Your task to perform on an android device: Search for "jbl flip 4" on ebay.com, select the first entry, and add it to the cart. Image 0: 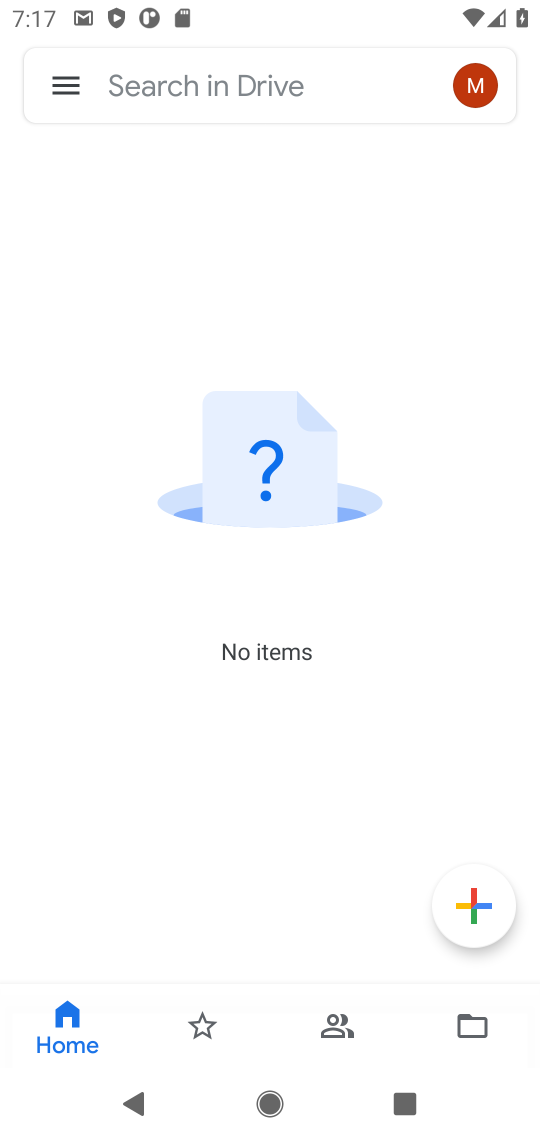
Step 0: press home button
Your task to perform on an android device: Search for "jbl flip 4" on ebay.com, select the first entry, and add it to the cart. Image 1: 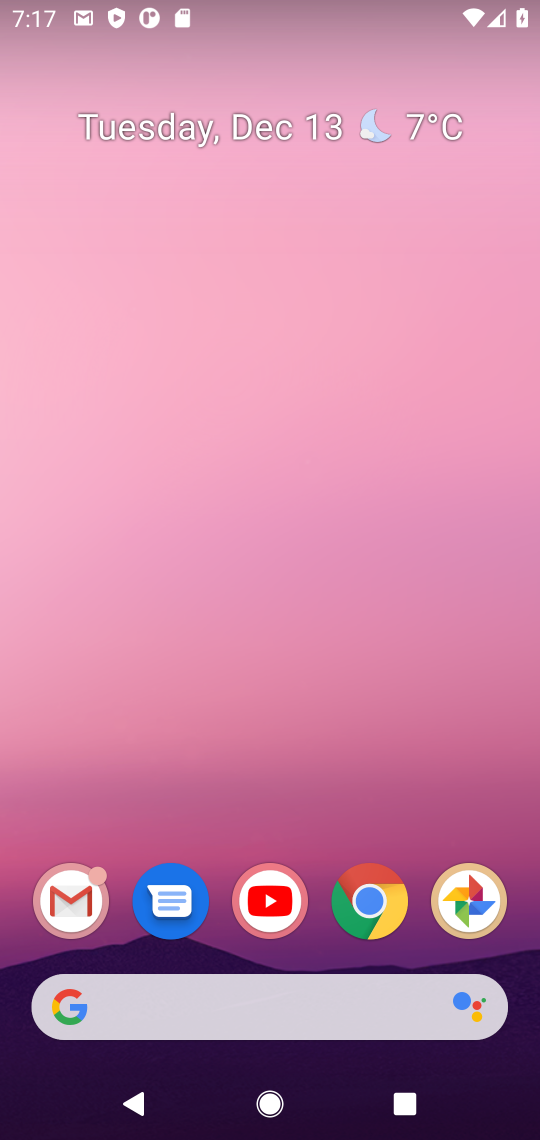
Step 1: click (369, 905)
Your task to perform on an android device: Search for "jbl flip 4" on ebay.com, select the first entry, and add it to the cart. Image 2: 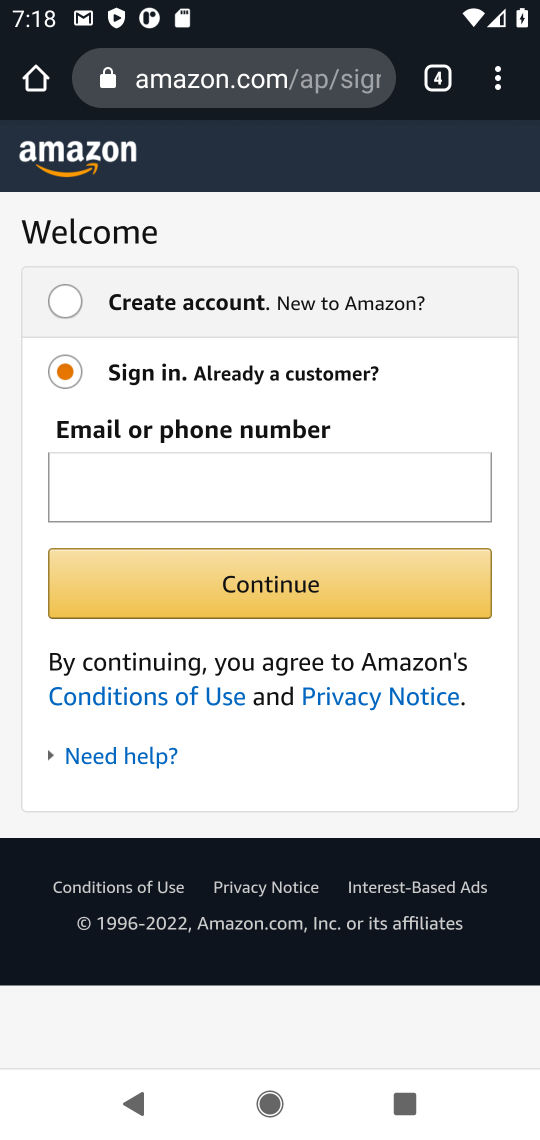
Step 2: click (426, 85)
Your task to perform on an android device: Search for "jbl flip 4" on ebay.com, select the first entry, and add it to the cart. Image 3: 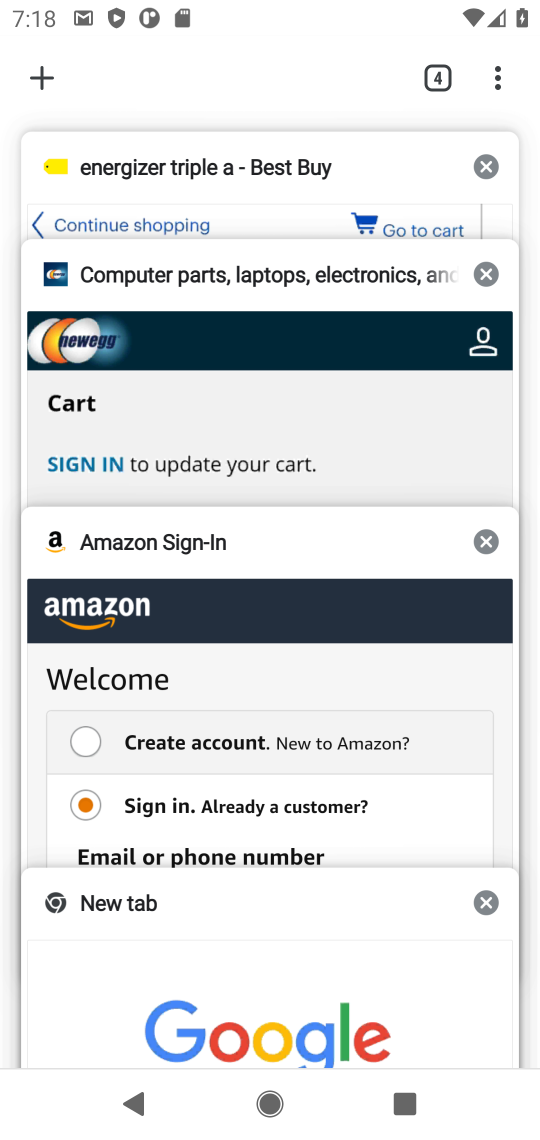
Step 3: click (170, 953)
Your task to perform on an android device: Search for "jbl flip 4" on ebay.com, select the first entry, and add it to the cart. Image 4: 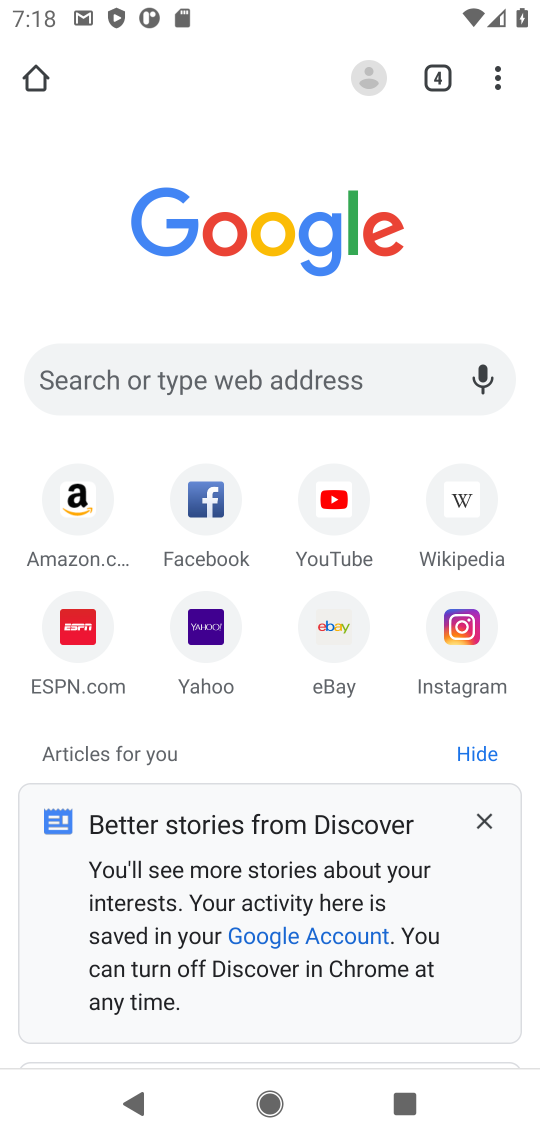
Step 4: click (332, 644)
Your task to perform on an android device: Search for "jbl flip 4" on ebay.com, select the first entry, and add it to the cart. Image 5: 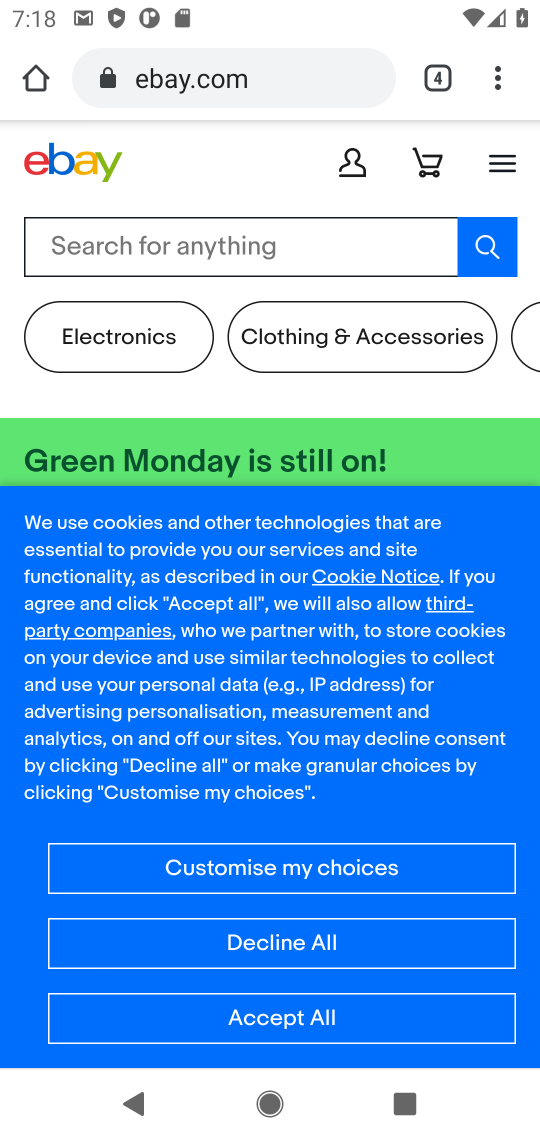
Step 5: click (172, 243)
Your task to perform on an android device: Search for "jbl flip 4" on ebay.com, select the first entry, and add it to the cart. Image 6: 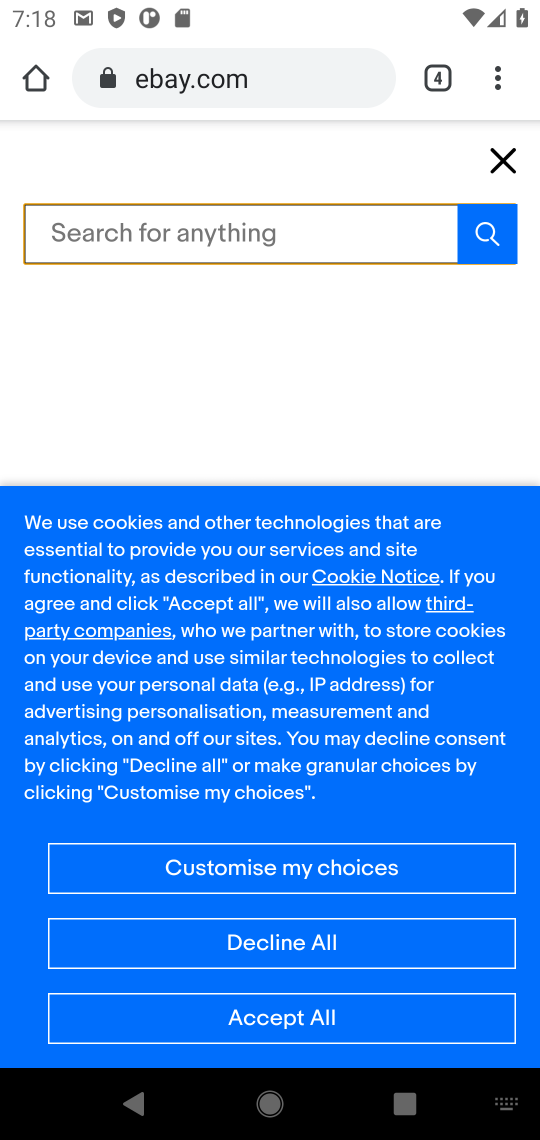
Step 6: type "jbl flip 4"
Your task to perform on an android device: Search for "jbl flip 4" on ebay.com, select the first entry, and add it to the cart. Image 7: 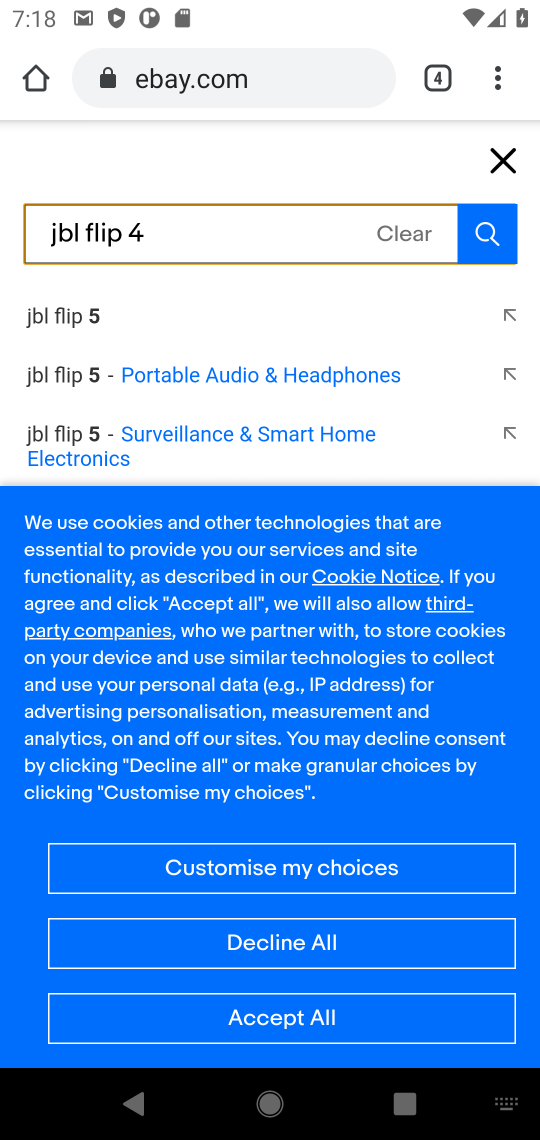
Step 7: click (332, 960)
Your task to perform on an android device: Search for "jbl flip 4" on ebay.com, select the first entry, and add it to the cart. Image 8: 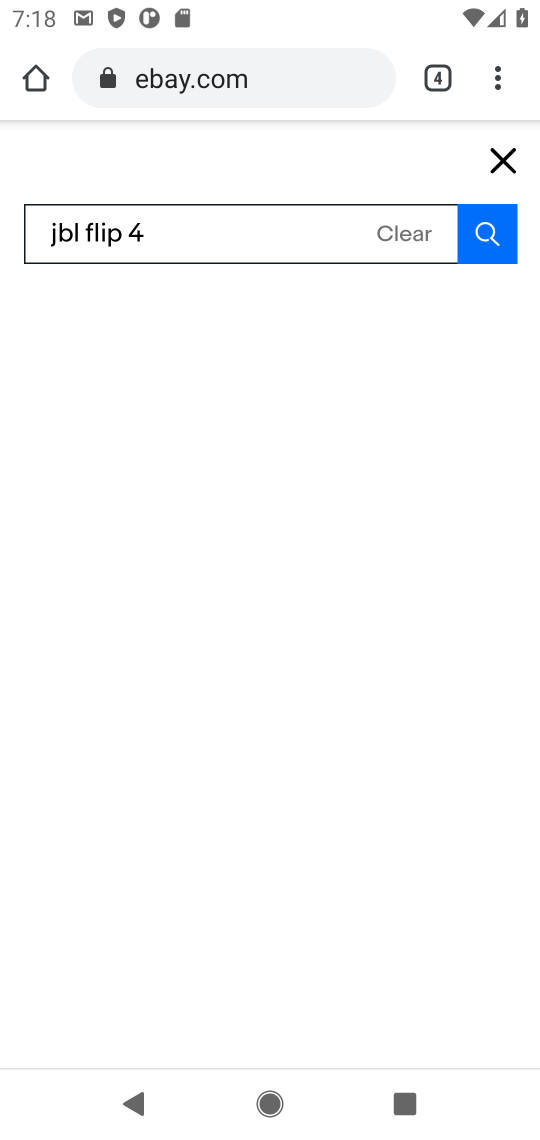
Step 8: click (488, 227)
Your task to perform on an android device: Search for "jbl flip 4" on ebay.com, select the first entry, and add it to the cart. Image 9: 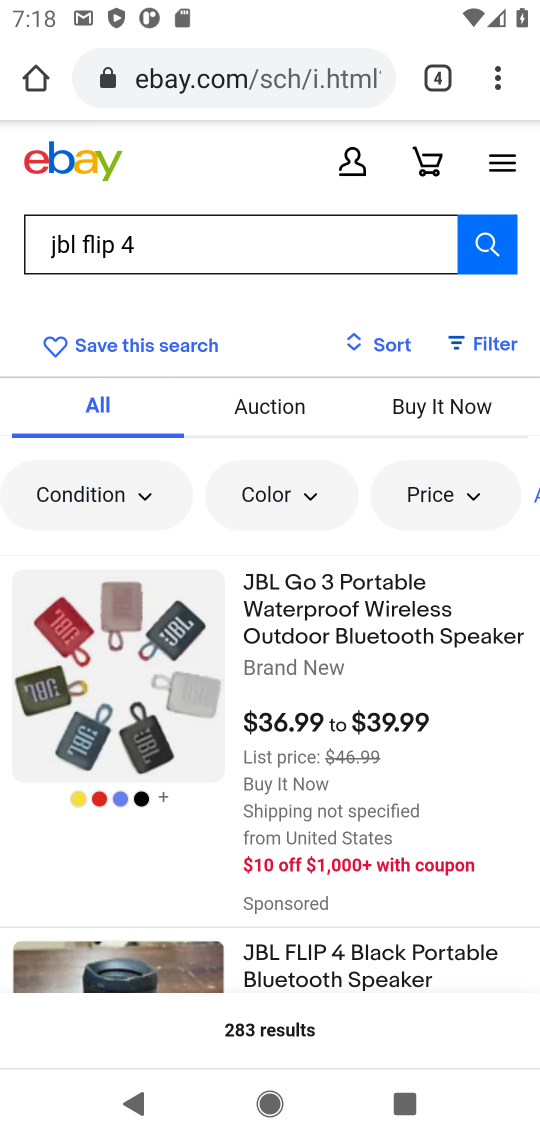
Step 9: click (361, 958)
Your task to perform on an android device: Search for "jbl flip 4" on ebay.com, select the first entry, and add it to the cart. Image 10: 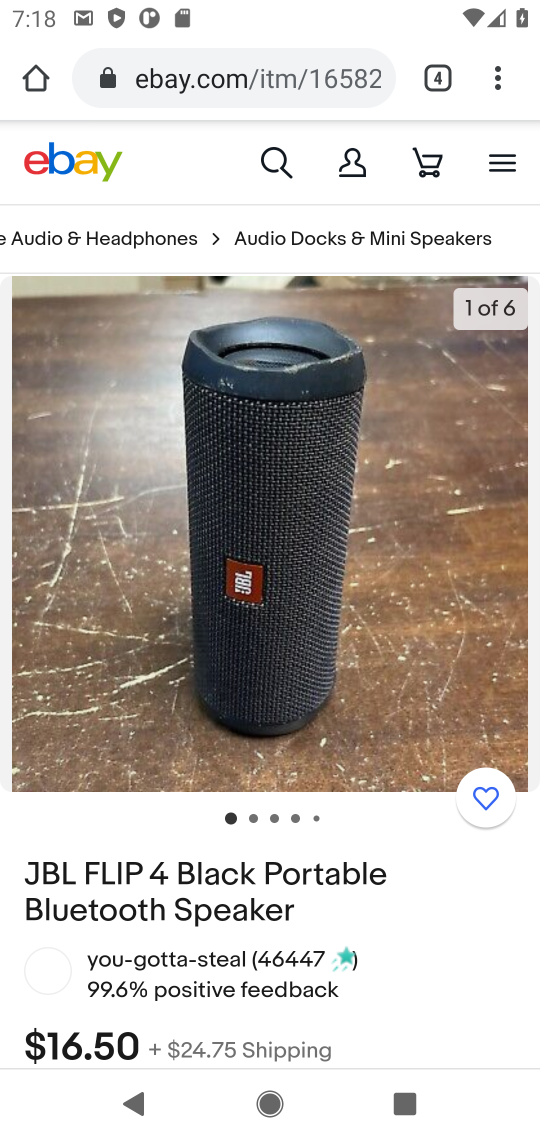
Step 10: drag from (358, 959) to (513, 381)
Your task to perform on an android device: Search for "jbl flip 4" on ebay.com, select the first entry, and add it to the cart. Image 11: 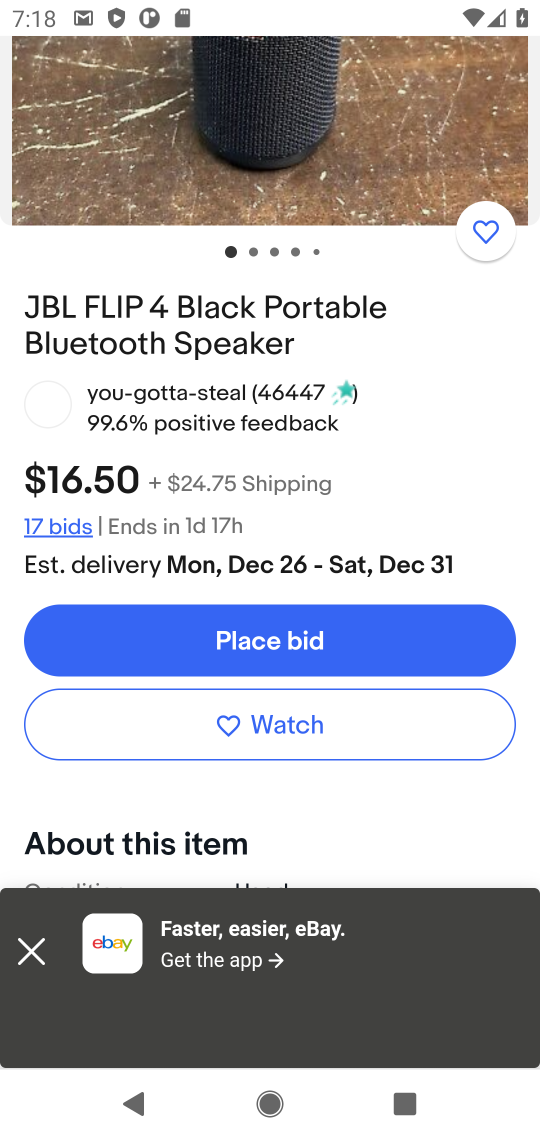
Step 11: drag from (267, 801) to (453, 40)
Your task to perform on an android device: Search for "jbl flip 4" on ebay.com, select the first entry, and add it to the cart. Image 12: 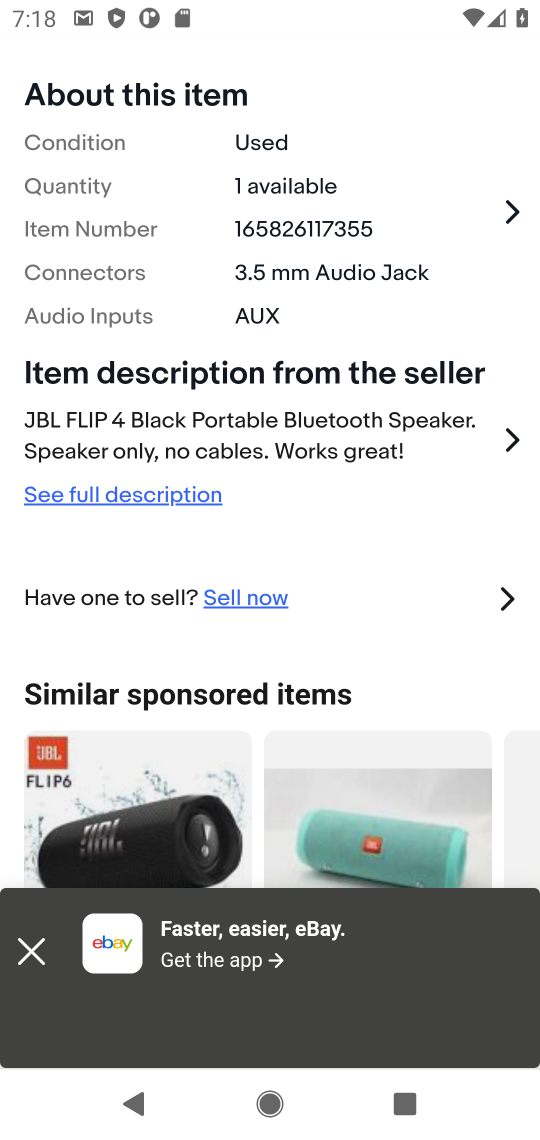
Step 12: click (23, 945)
Your task to perform on an android device: Search for "jbl flip 4" on ebay.com, select the first entry, and add it to the cart. Image 13: 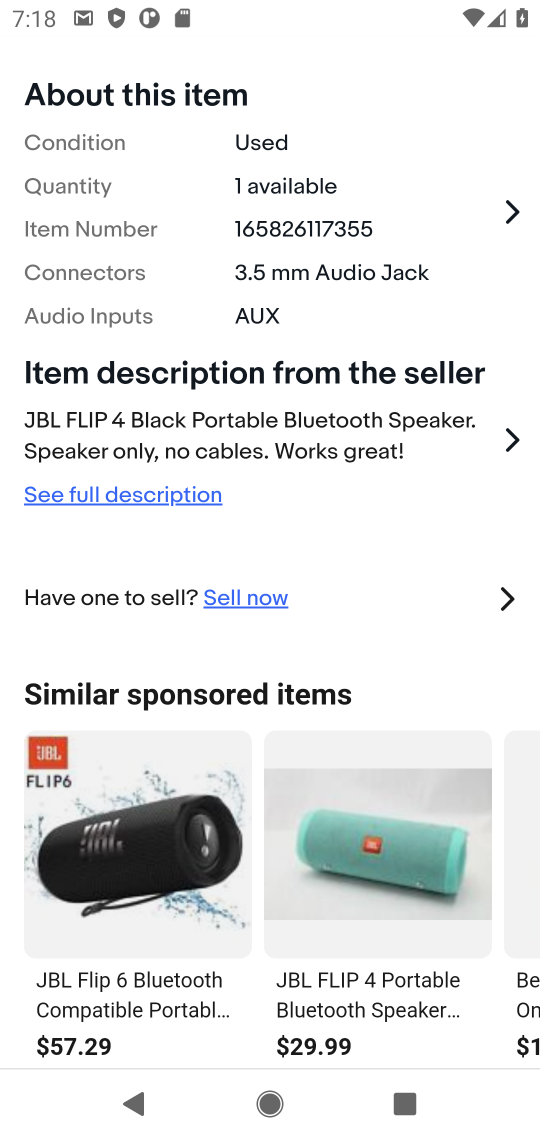
Step 13: click (328, 1010)
Your task to perform on an android device: Search for "jbl flip 4" on ebay.com, select the first entry, and add it to the cart. Image 14: 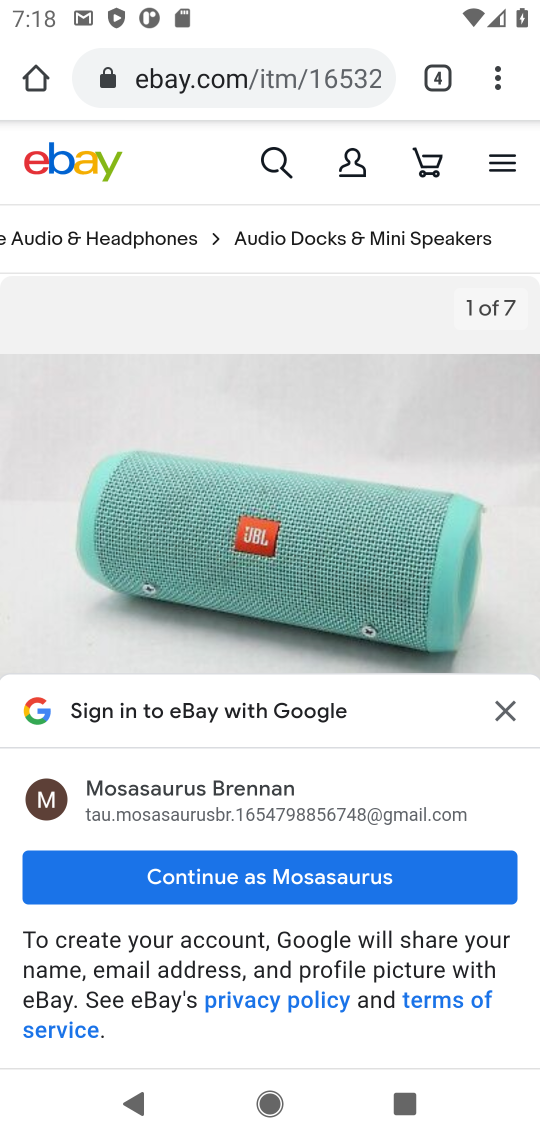
Step 14: drag from (383, 1007) to (450, 335)
Your task to perform on an android device: Search for "jbl flip 4" on ebay.com, select the first entry, and add it to the cart. Image 15: 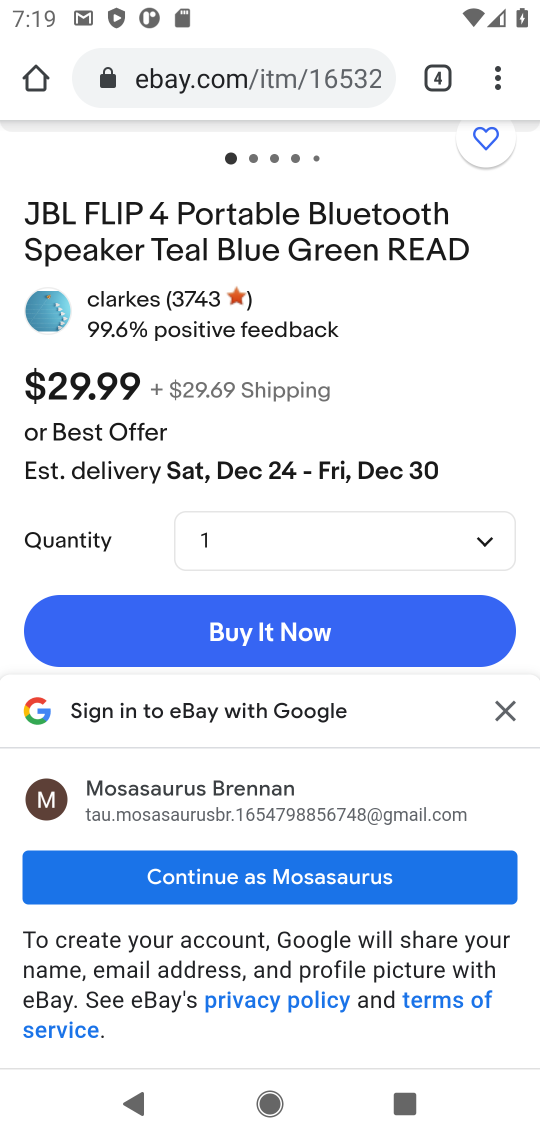
Step 15: click (505, 706)
Your task to perform on an android device: Search for "jbl flip 4" on ebay.com, select the first entry, and add it to the cart. Image 16: 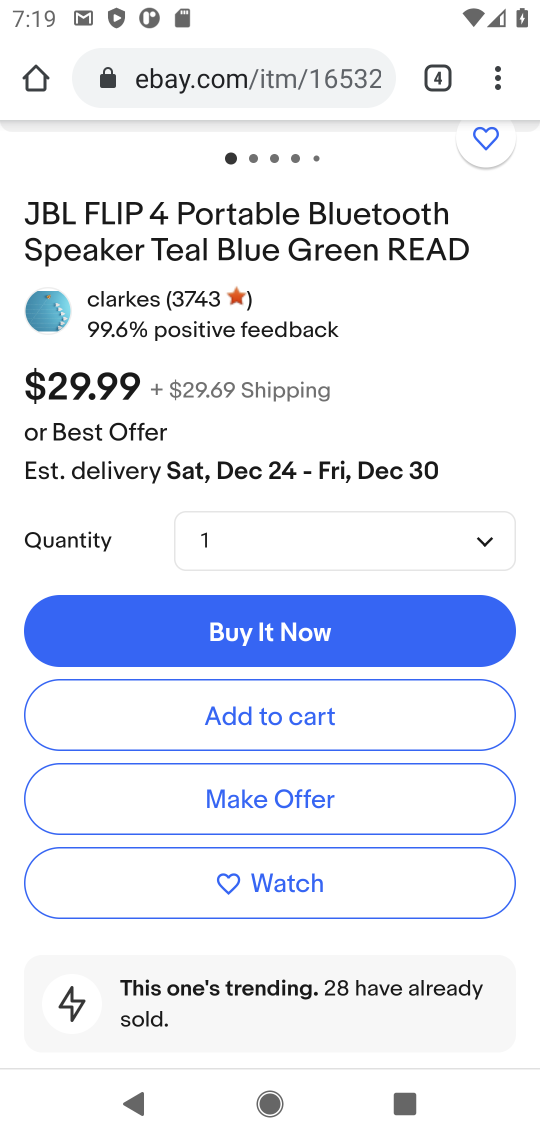
Step 16: click (389, 710)
Your task to perform on an android device: Search for "jbl flip 4" on ebay.com, select the first entry, and add it to the cart. Image 17: 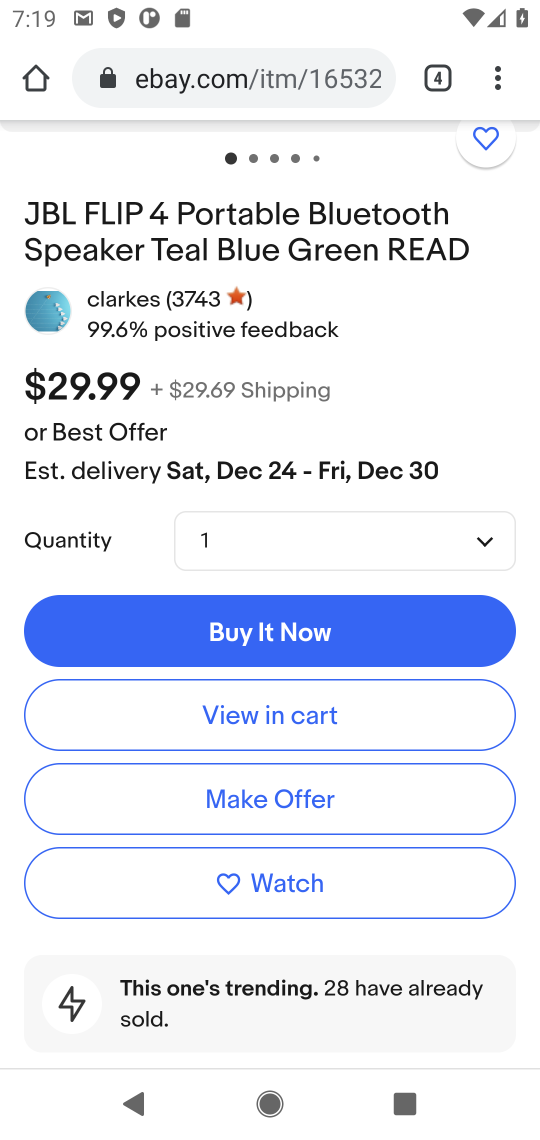
Step 17: click (389, 710)
Your task to perform on an android device: Search for "jbl flip 4" on ebay.com, select the first entry, and add it to the cart. Image 18: 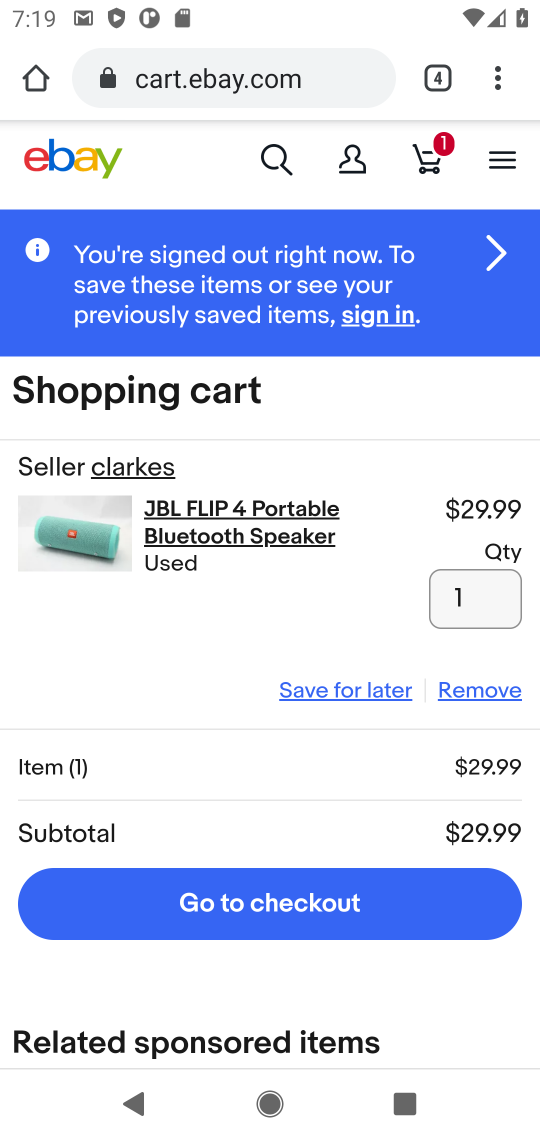
Step 18: task complete